Your task to perform on an android device: Open Wikipedia Image 0: 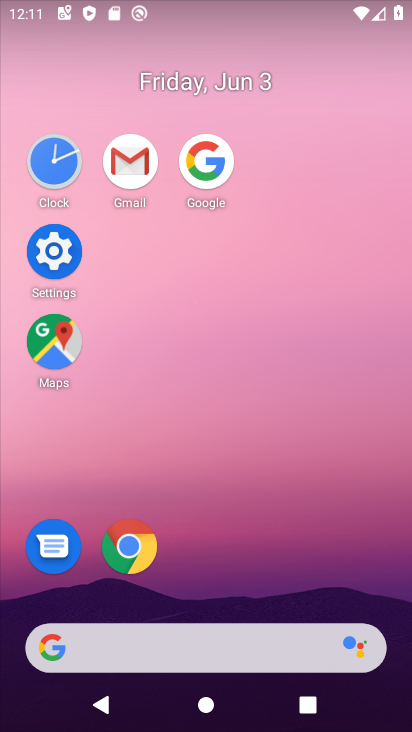
Step 0: click (130, 563)
Your task to perform on an android device: Open Wikipedia Image 1: 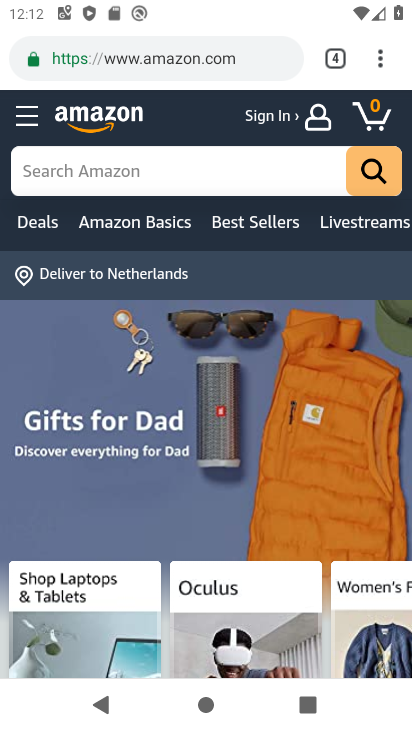
Step 1: click (336, 64)
Your task to perform on an android device: Open Wikipedia Image 2: 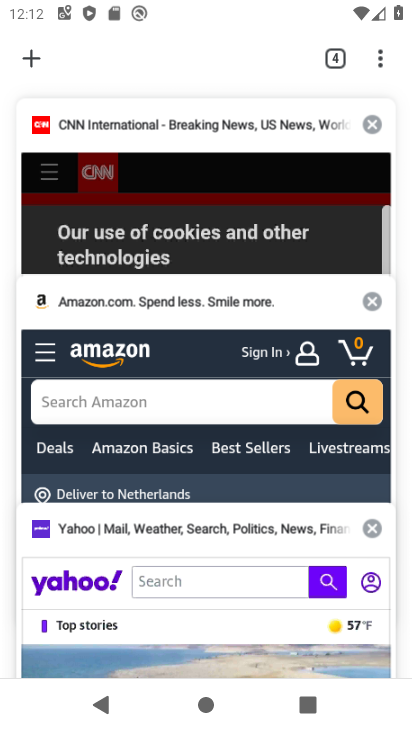
Step 2: drag from (251, 163) to (255, 475)
Your task to perform on an android device: Open Wikipedia Image 3: 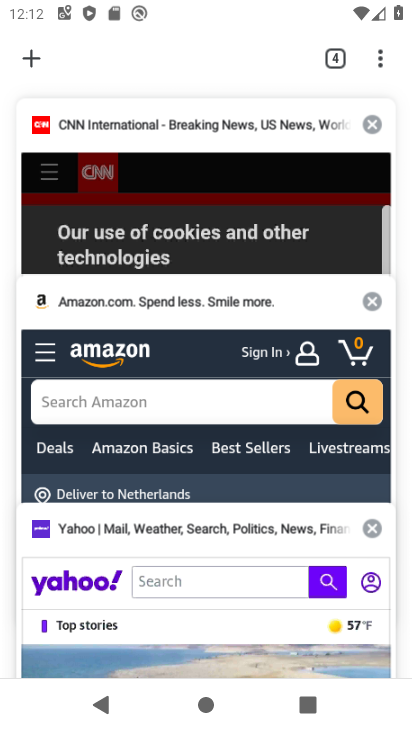
Step 3: drag from (213, 526) to (218, 140)
Your task to perform on an android device: Open Wikipedia Image 4: 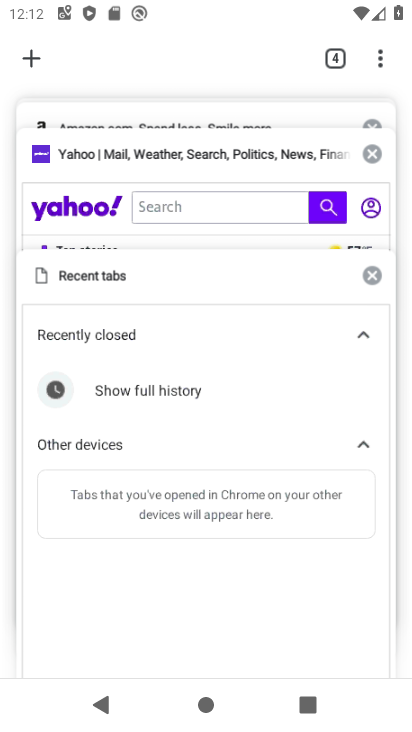
Step 4: drag from (213, 114) to (230, 540)
Your task to perform on an android device: Open Wikipedia Image 5: 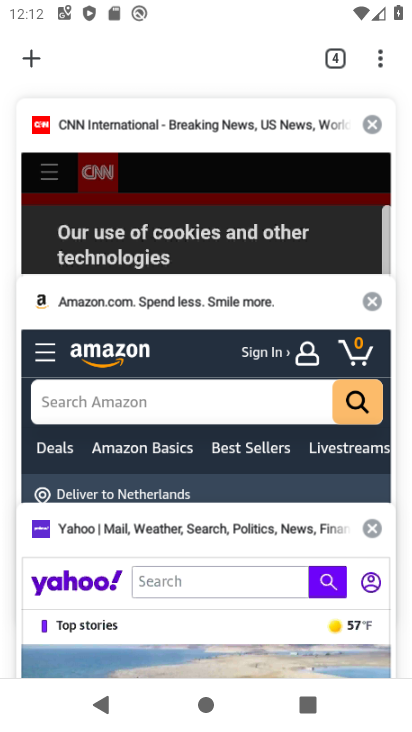
Step 5: click (41, 58)
Your task to perform on an android device: Open Wikipedia Image 6: 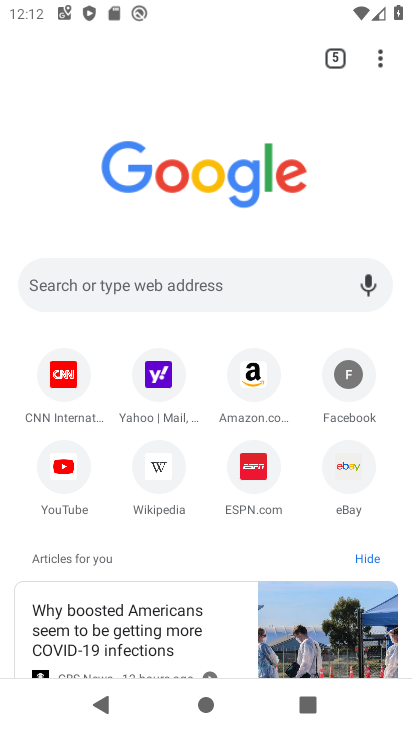
Step 6: click (162, 457)
Your task to perform on an android device: Open Wikipedia Image 7: 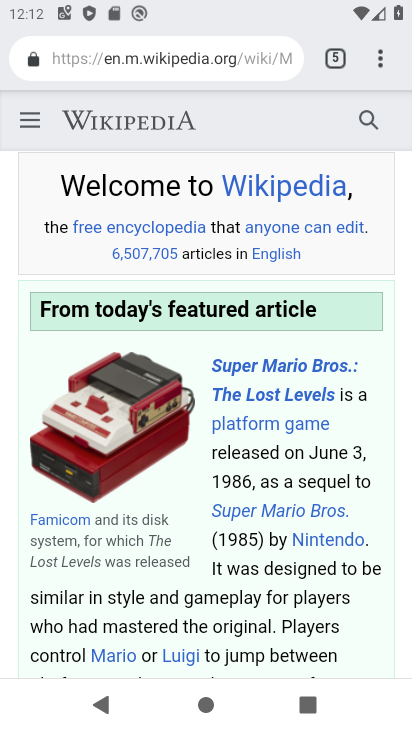
Step 7: task complete